Your task to perform on an android device: open a new tab in the chrome app Image 0: 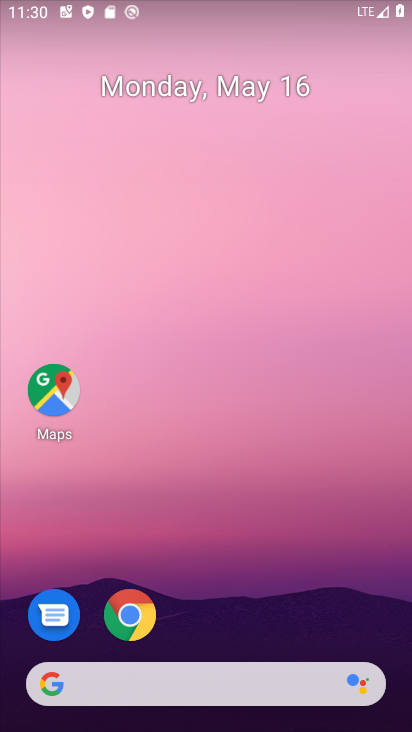
Step 0: drag from (235, 622) to (246, 374)
Your task to perform on an android device: open a new tab in the chrome app Image 1: 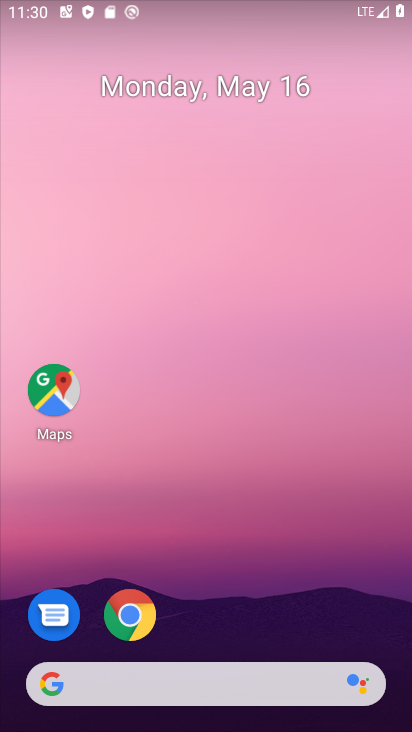
Step 1: click (147, 629)
Your task to perform on an android device: open a new tab in the chrome app Image 2: 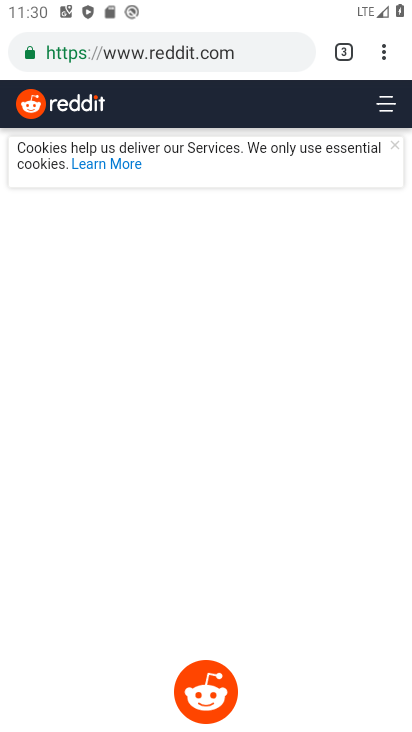
Step 2: drag from (265, 57) to (227, 300)
Your task to perform on an android device: open a new tab in the chrome app Image 3: 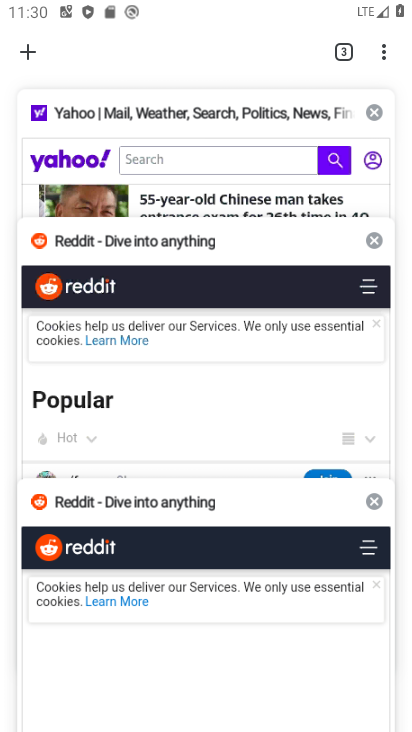
Step 3: click (44, 49)
Your task to perform on an android device: open a new tab in the chrome app Image 4: 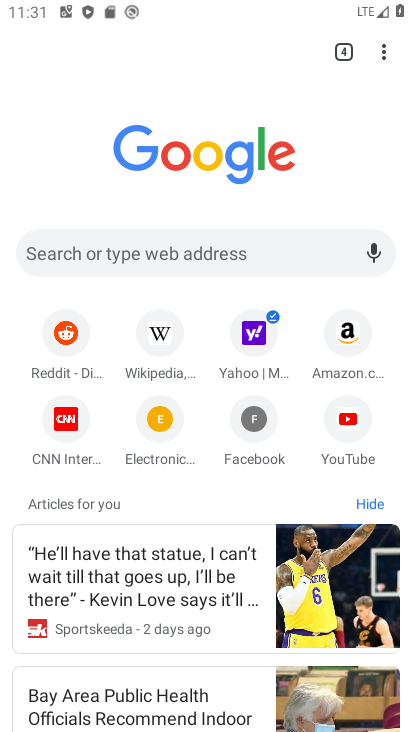
Step 4: task complete